Your task to perform on an android device: What's the weather? Image 0: 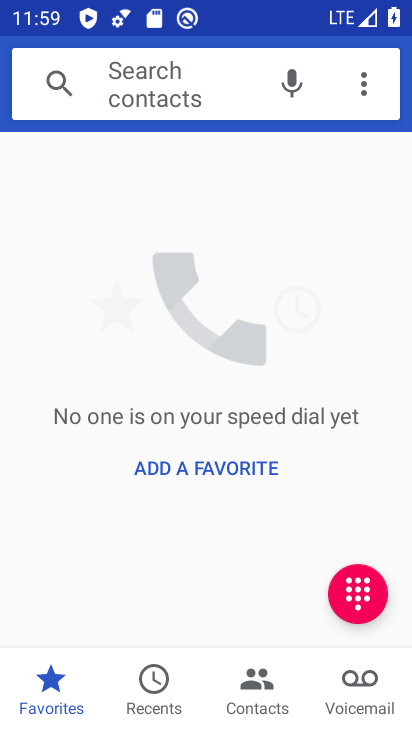
Step 0: click (67, 438)
Your task to perform on an android device: What's the weather? Image 1: 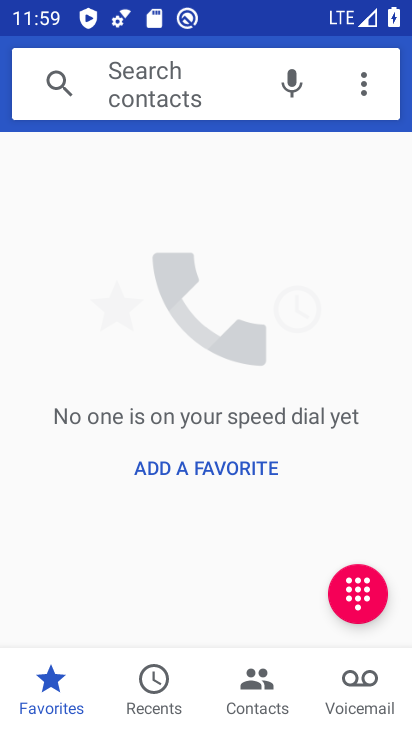
Step 1: press home button
Your task to perform on an android device: What's the weather? Image 2: 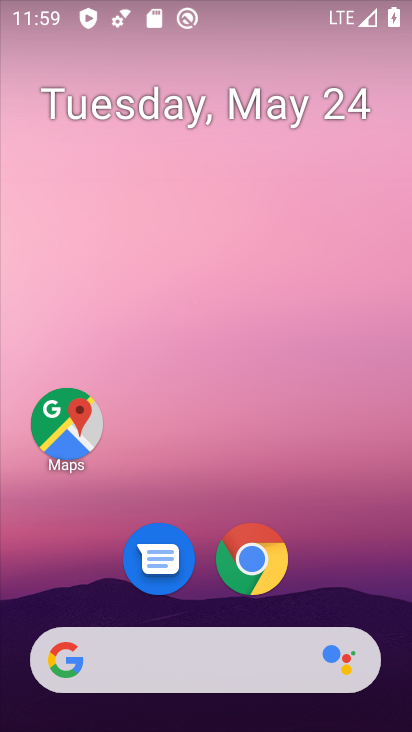
Step 2: drag from (4, 219) to (389, 256)
Your task to perform on an android device: What's the weather? Image 3: 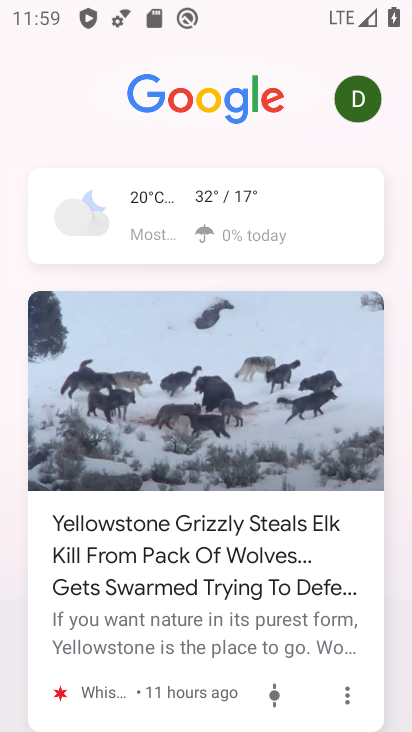
Step 3: click (253, 197)
Your task to perform on an android device: What's the weather? Image 4: 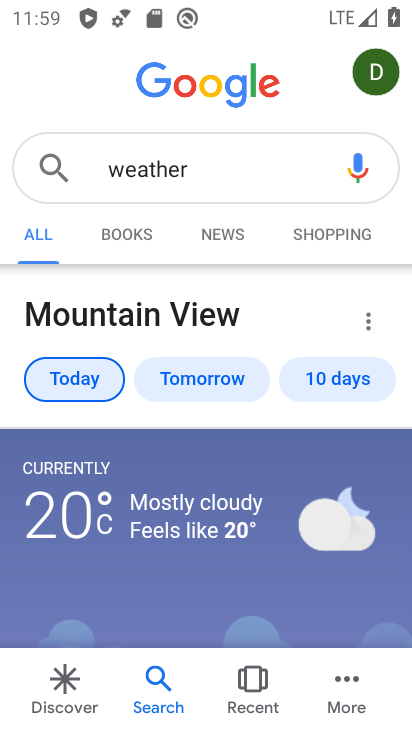
Step 4: task complete